Your task to perform on an android device: Search for the best rated circular saw on Lowes.com Image 0: 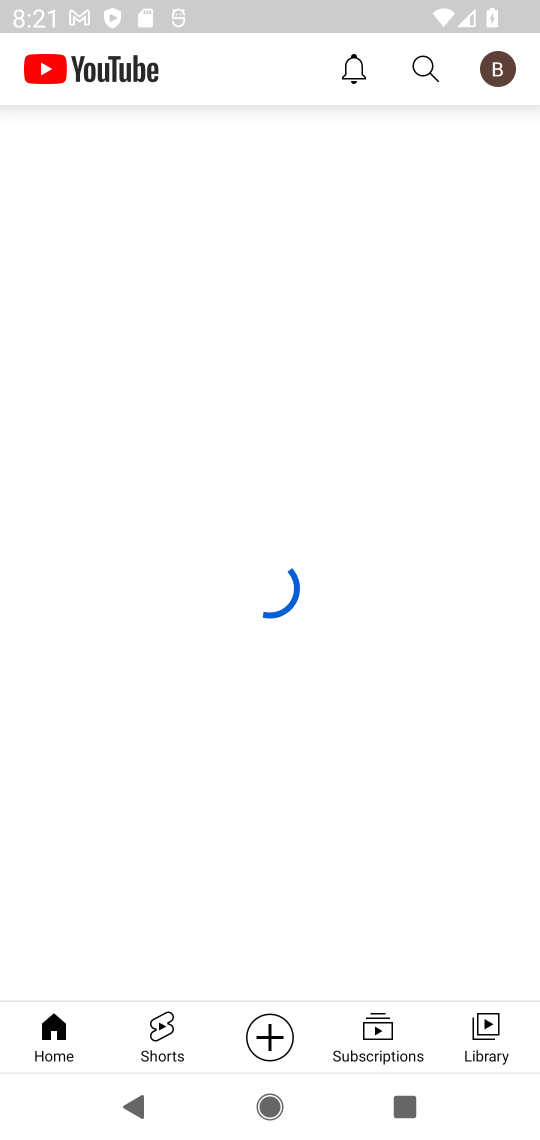
Step 0: press home button
Your task to perform on an android device: Search for the best rated circular saw on Lowes.com Image 1: 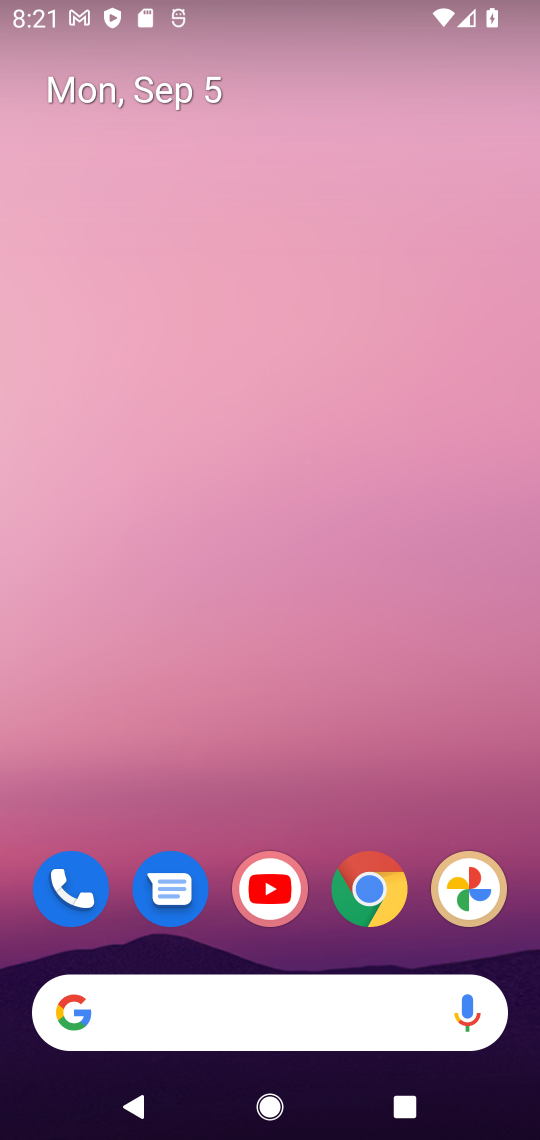
Step 1: click (227, 1033)
Your task to perform on an android device: Search for the best rated circular saw on Lowes.com Image 2: 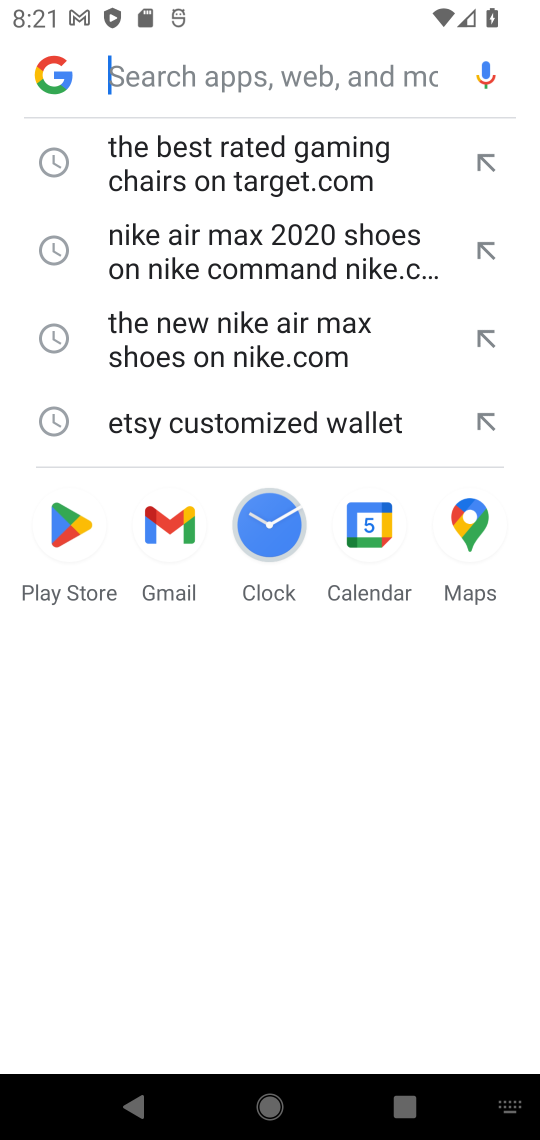
Step 2: type "the best rated circular saw on Lowes.com"
Your task to perform on an android device: Search for the best rated circular saw on Lowes.com Image 3: 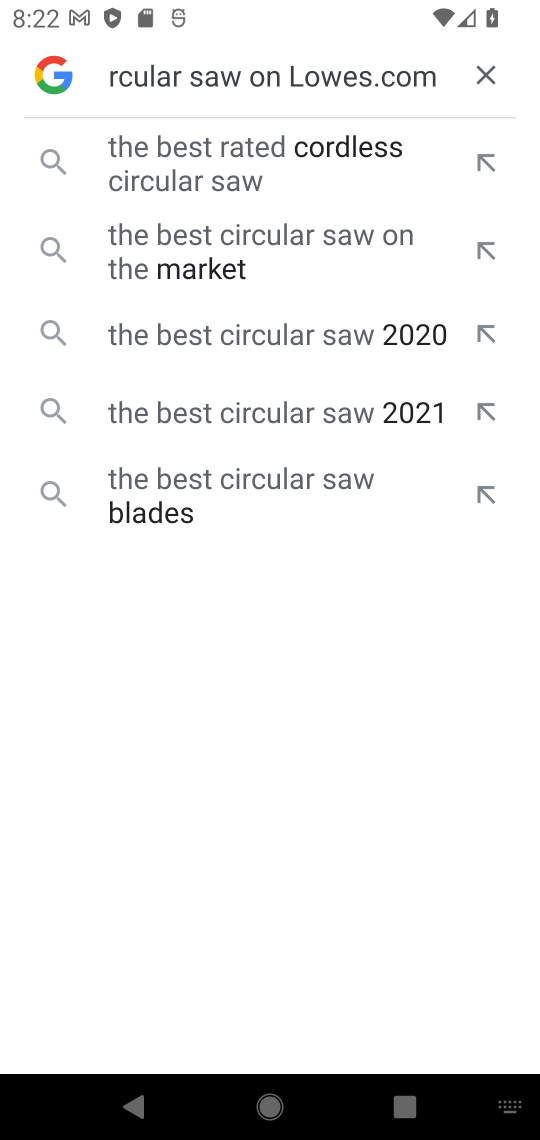
Step 3: click (217, 182)
Your task to perform on an android device: Search for the best rated circular saw on Lowes.com Image 4: 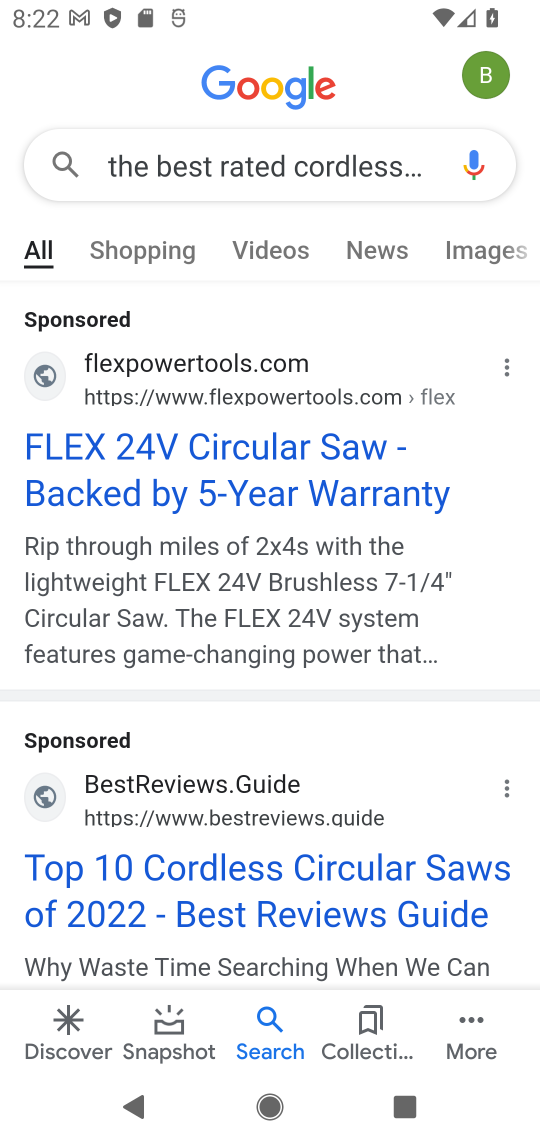
Step 4: task complete